Your task to perform on an android device: clear all cookies in the chrome app Image 0: 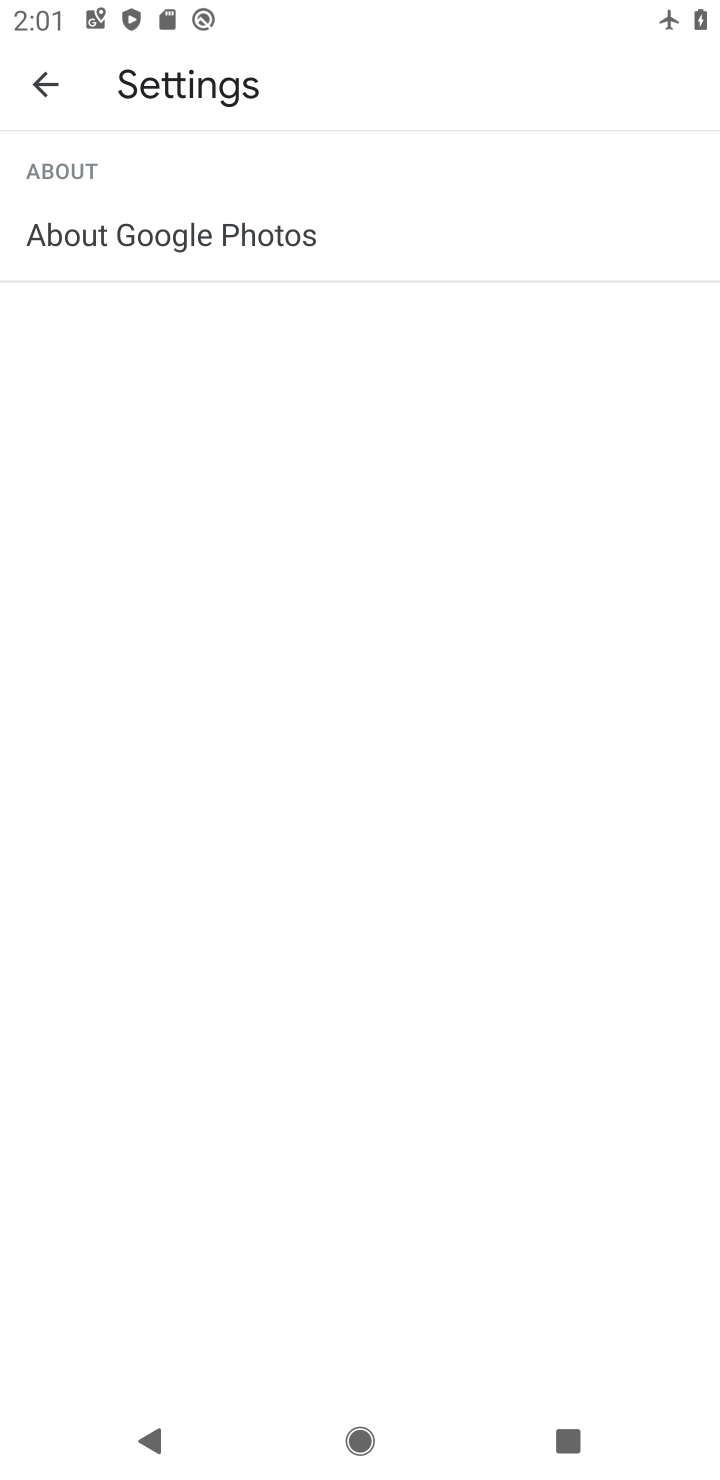
Step 0: press home button
Your task to perform on an android device: clear all cookies in the chrome app Image 1: 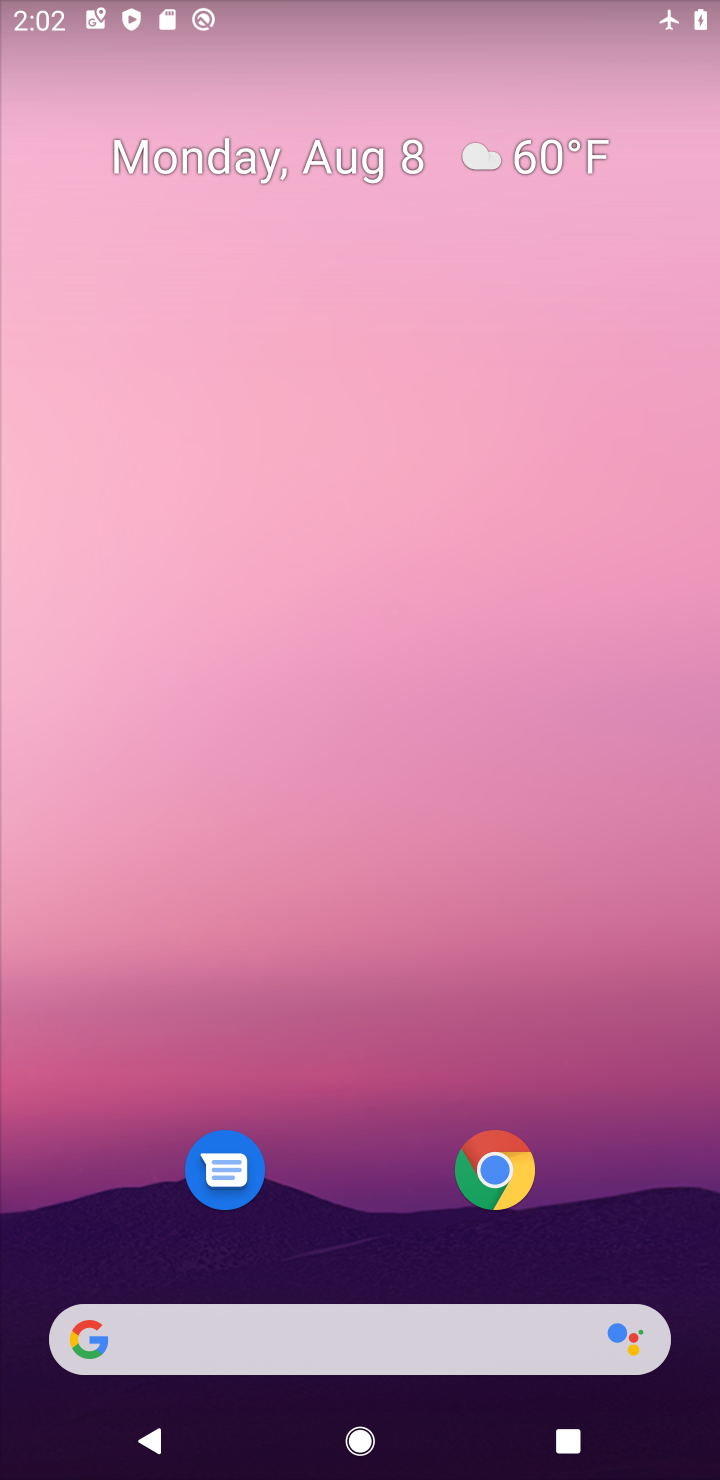
Step 1: click (489, 1175)
Your task to perform on an android device: clear all cookies in the chrome app Image 2: 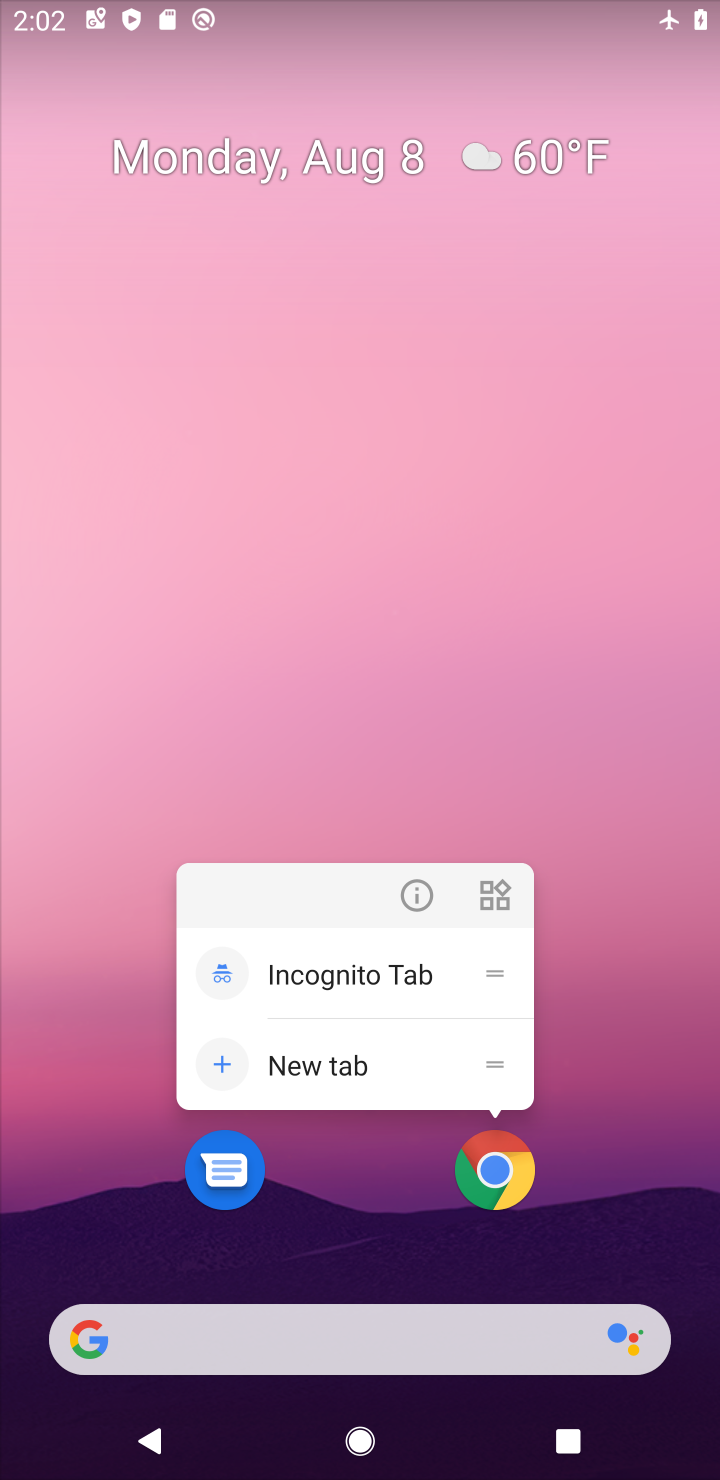
Step 2: click (489, 1175)
Your task to perform on an android device: clear all cookies in the chrome app Image 3: 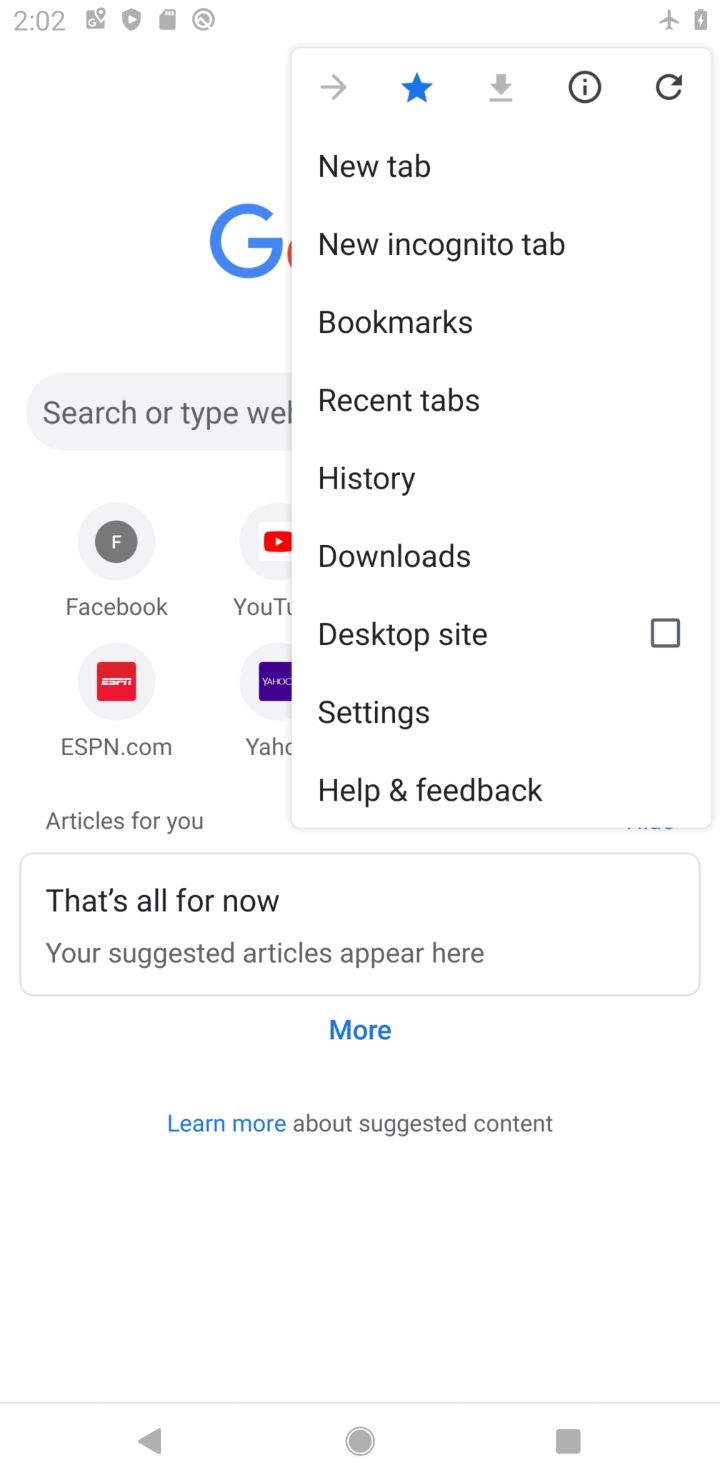
Step 3: click (489, 1175)
Your task to perform on an android device: clear all cookies in the chrome app Image 4: 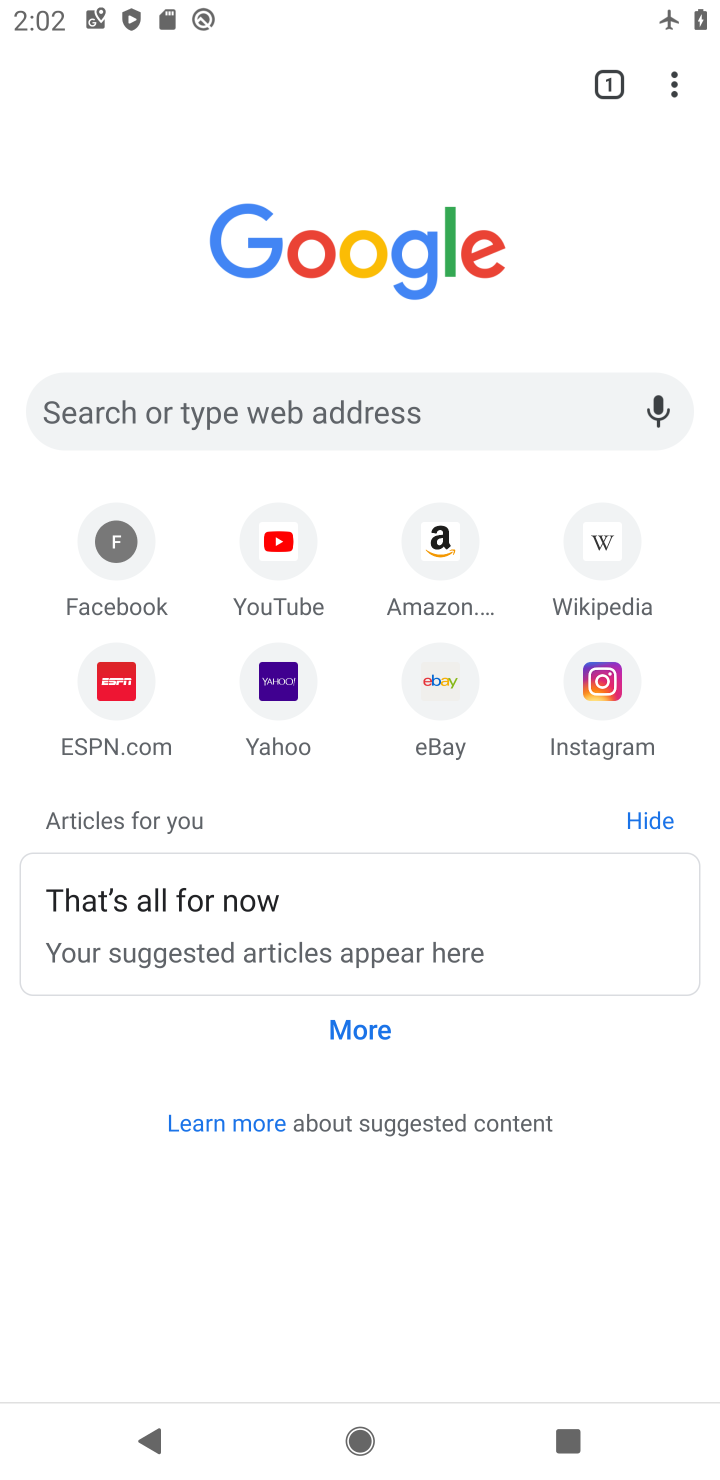
Step 4: click (675, 89)
Your task to perform on an android device: clear all cookies in the chrome app Image 5: 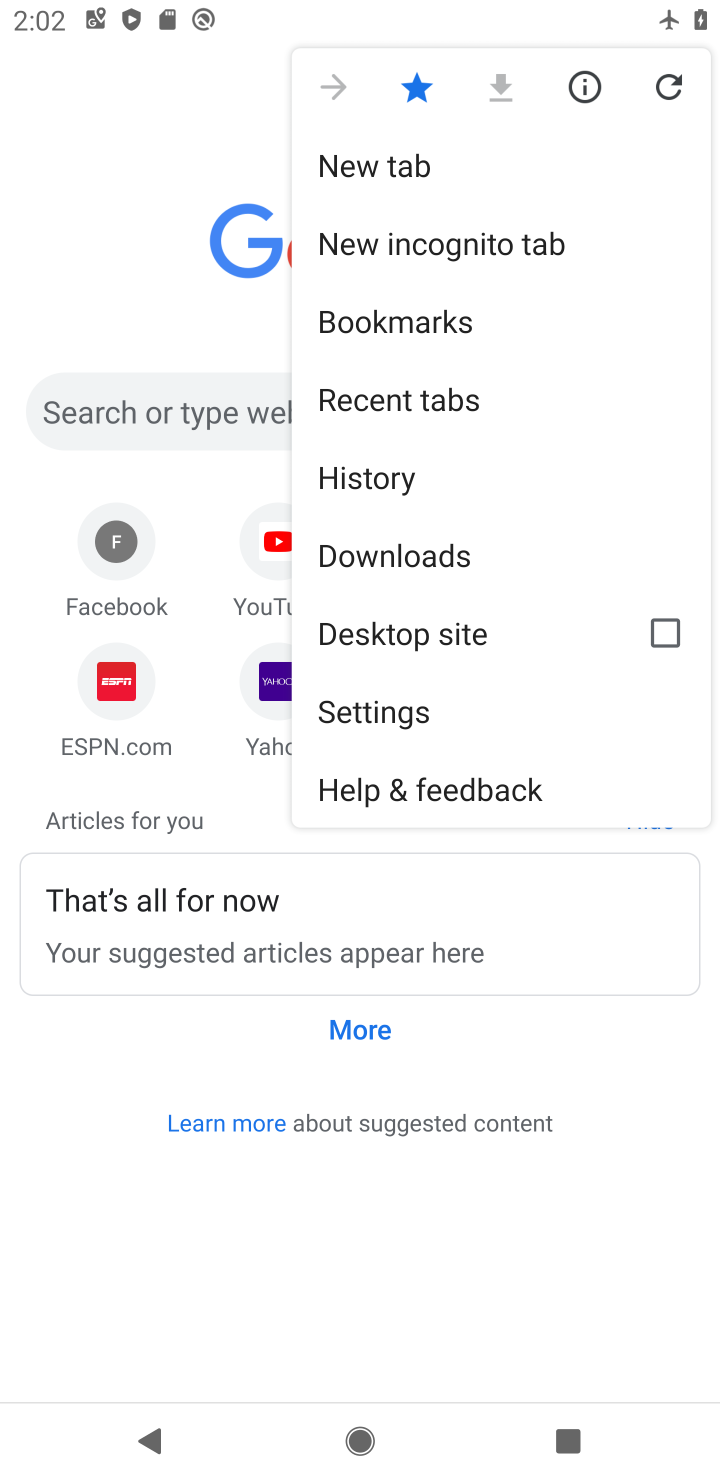
Step 5: click (422, 477)
Your task to perform on an android device: clear all cookies in the chrome app Image 6: 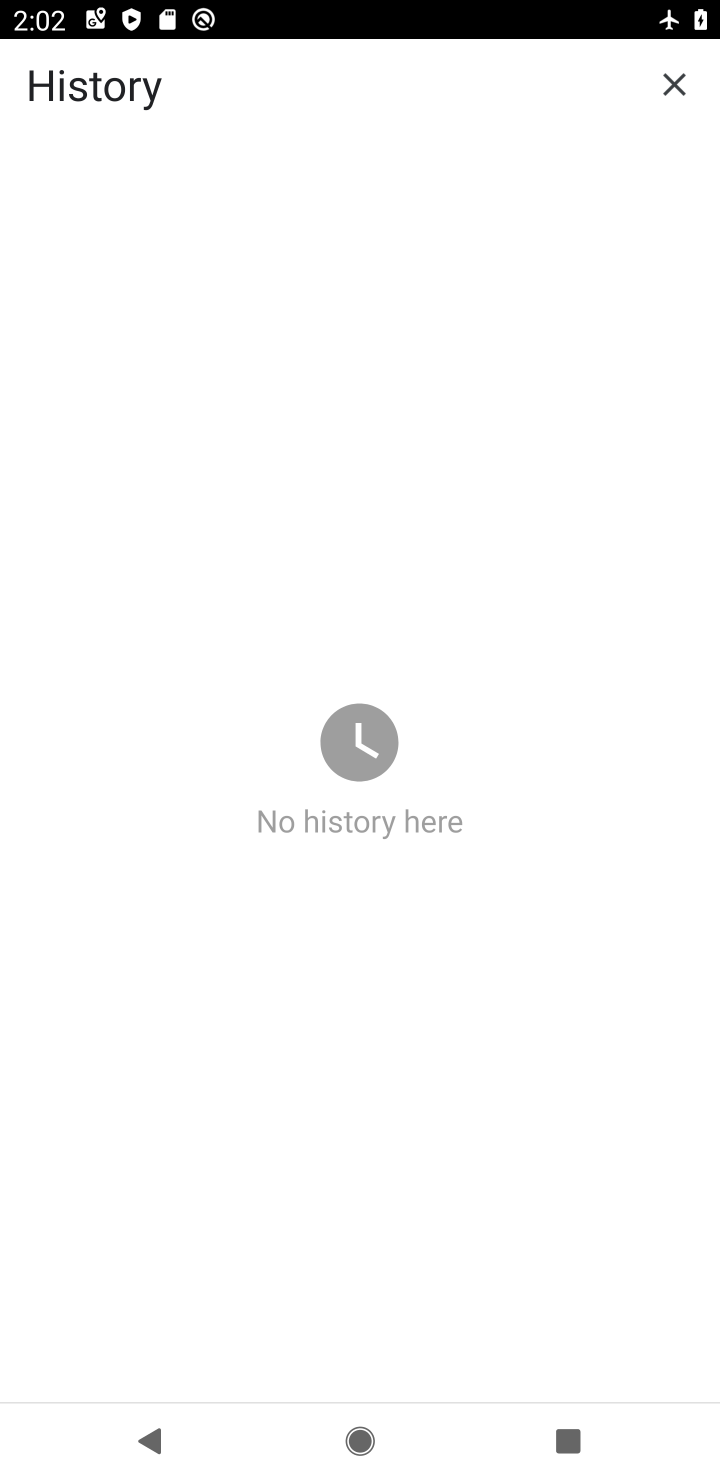
Step 6: task complete